Your task to perform on an android device: Open network settings Image 0: 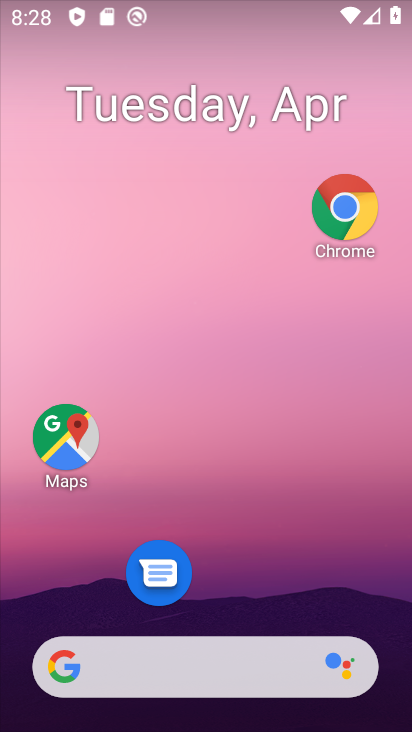
Step 0: drag from (215, 530) to (212, 23)
Your task to perform on an android device: Open network settings Image 1: 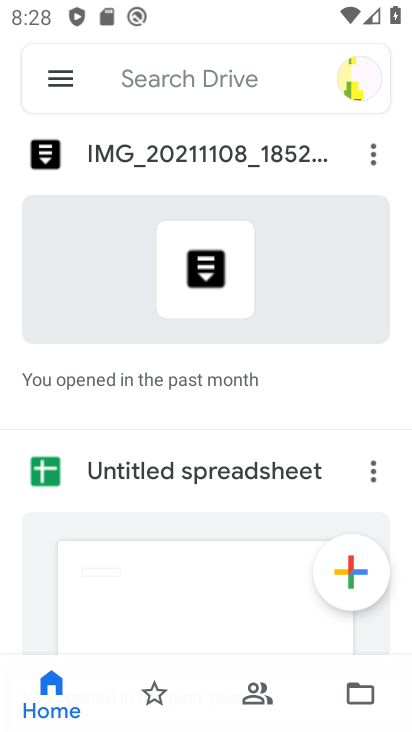
Step 1: press home button
Your task to perform on an android device: Open network settings Image 2: 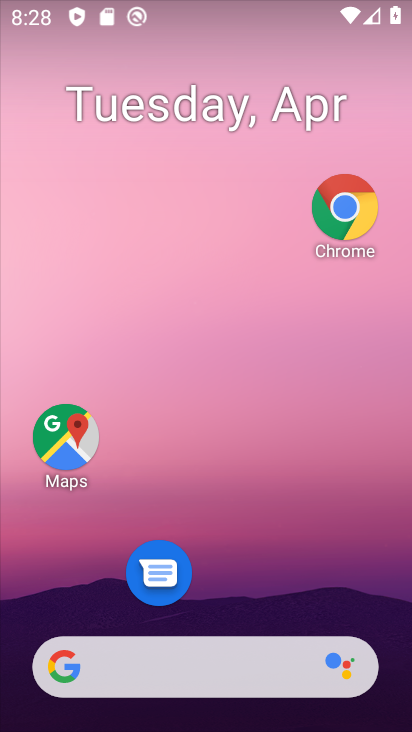
Step 2: drag from (234, 621) to (303, 21)
Your task to perform on an android device: Open network settings Image 3: 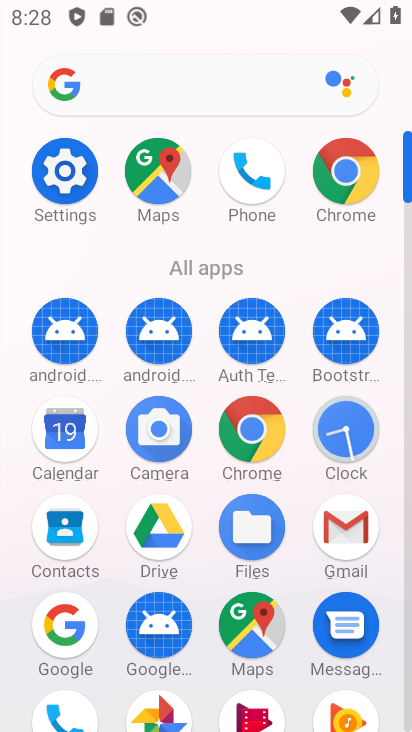
Step 3: click (66, 196)
Your task to perform on an android device: Open network settings Image 4: 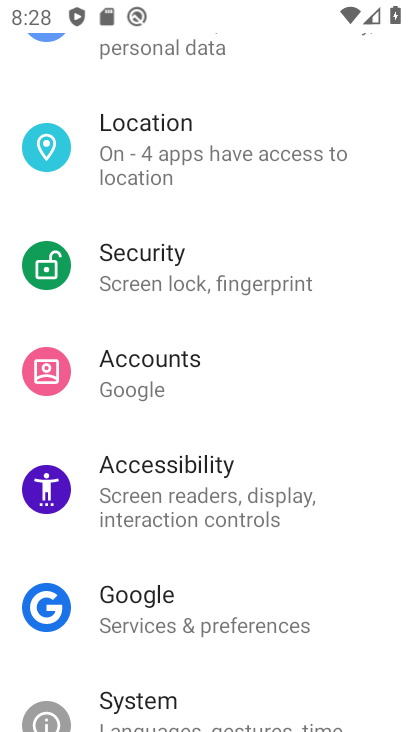
Step 4: click (128, 655)
Your task to perform on an android device: Open network settings Image 5: 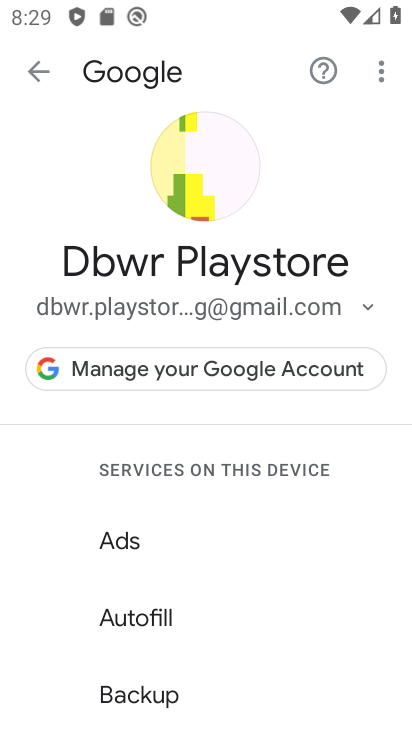
Step 5: click (39, 76)
Your task to perform on an android device: Open network settings Image 6: 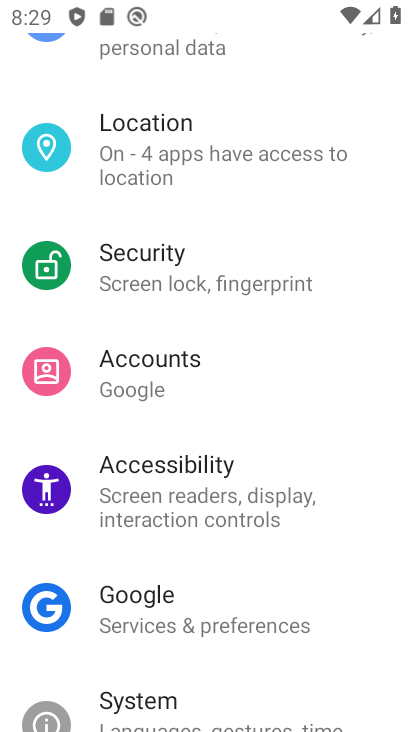
Step 6: drag from (133, 234) to (127, 640)
Your task to perform on an android device: Open network settings Image 7: 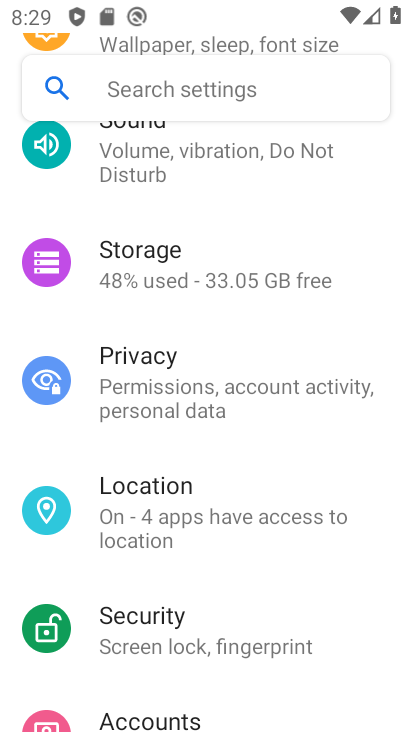
Step 7: drag from (210, 174) to (241, 703)
Your task to perform on an android device: Open network settings Image 8: 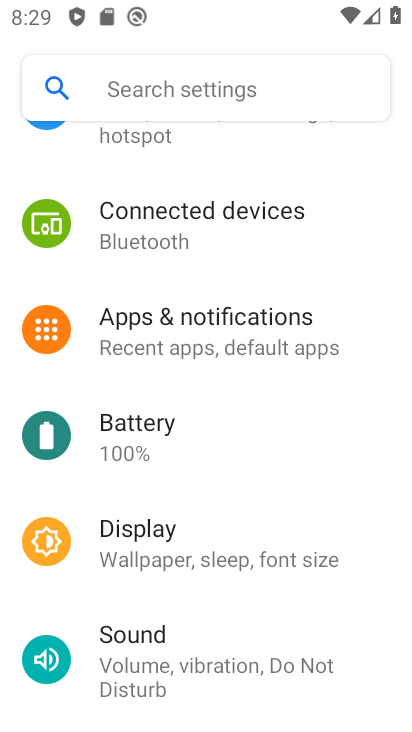
Step 8: drag from (170, 232) to (164, 700)
Your task to perform on an android device: Open network settings Image 9: 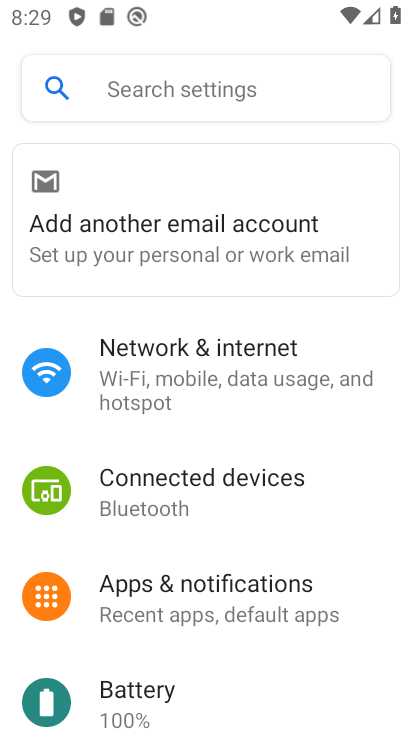
Step 9: click (214, 339)
Your task to perform on an android device: Open network settings Image 10: 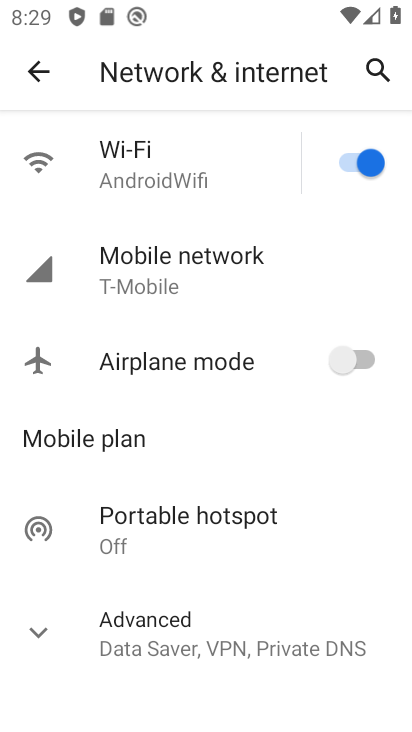
Step 10: click (120, 260)
Your task to perform on an android device: Open network settings Image 11: 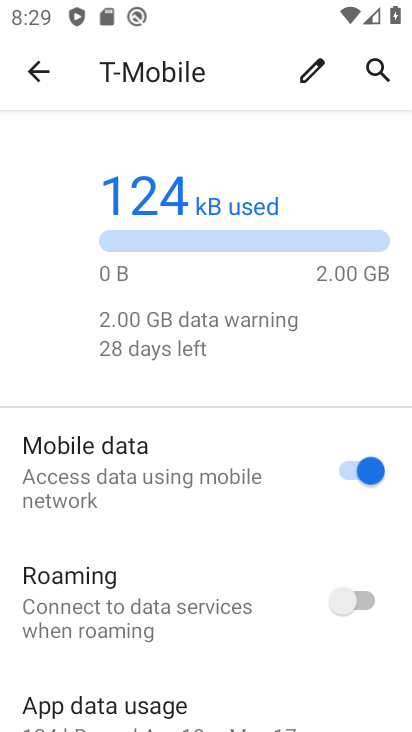
Step 11: drag from (189, 570) to (141, 54)
Your task to perform on an android device: Open network settings Image 12: 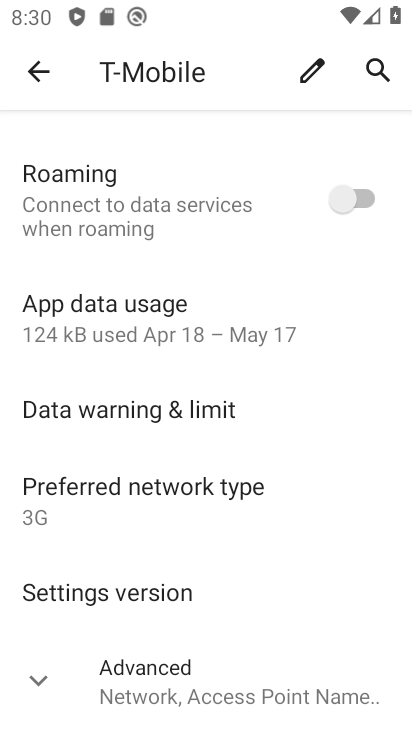
Step 12: click (112, 665)
Your task to perform on an android device: Open network settings Image 13: 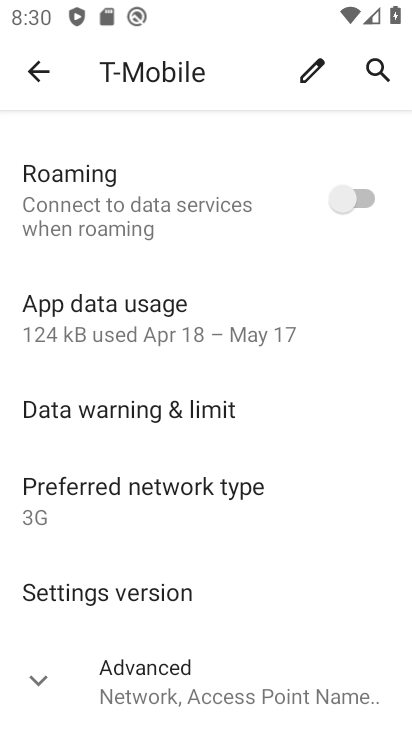
Step 13: task complete